Your task to perform on an android device: toggle sleep mode Image 0: 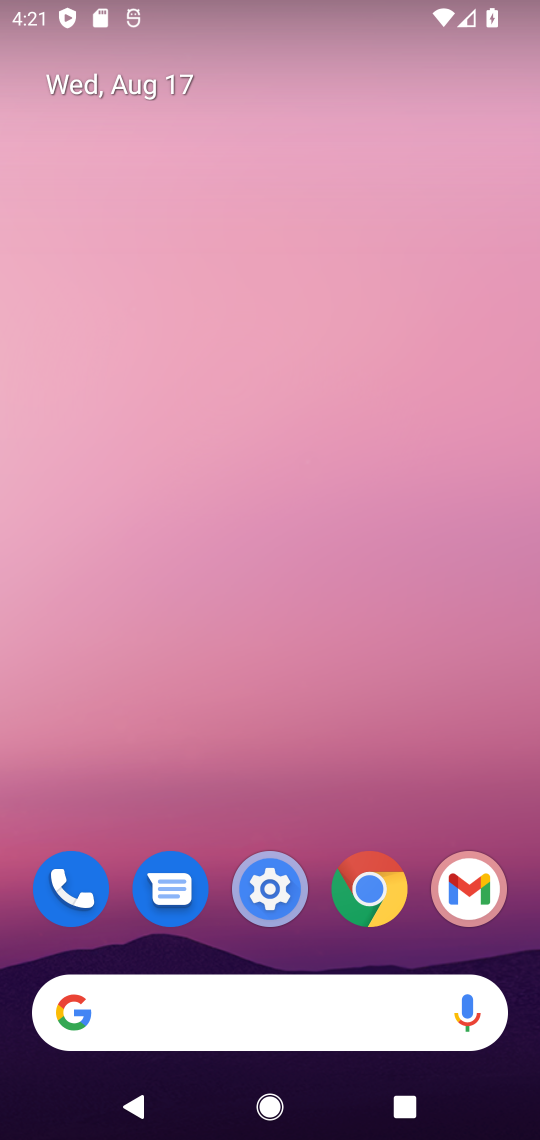
Step 0: click (271, 892)
Your task to perform on an android device: toggle sleep mode Image 1: 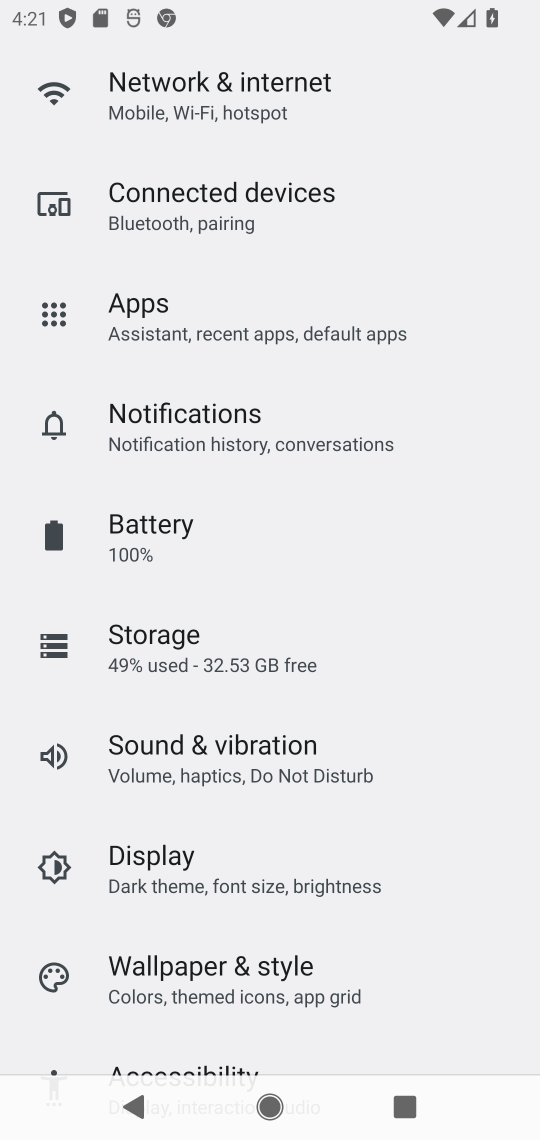
Step 1: click (132, 864)
Your task to perform on an android device: toggle sleep mode Image 2: 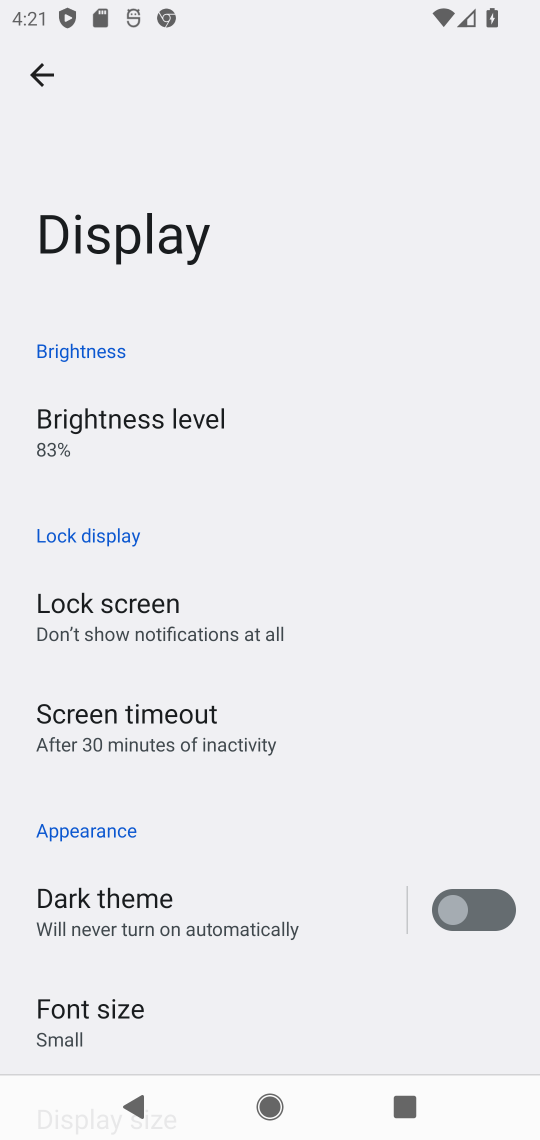
Step 2: task complete